Your task to perform on an android device: Open Chrome and go to settings Image 0: 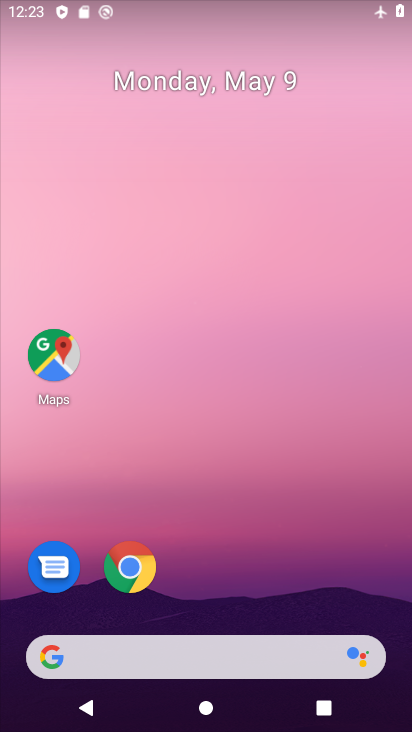
Step 0: click (134, 560)
Your task to perform on an android device: Open Chrome and go to settings Image 1: 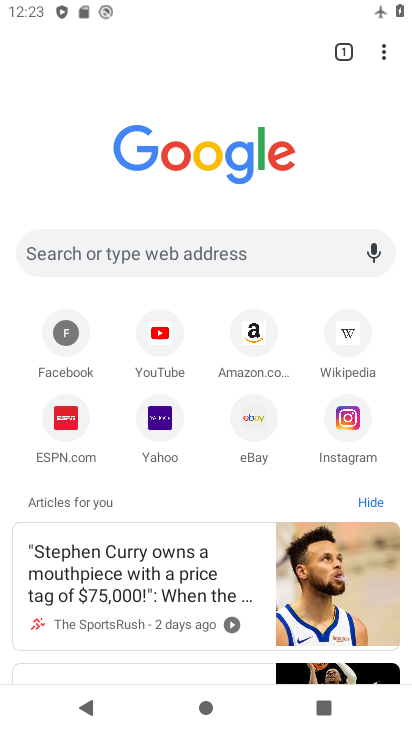
Step 1: click (385, 57)
Your task to perform on an android device: Open Chrome and go to settings Image 2: 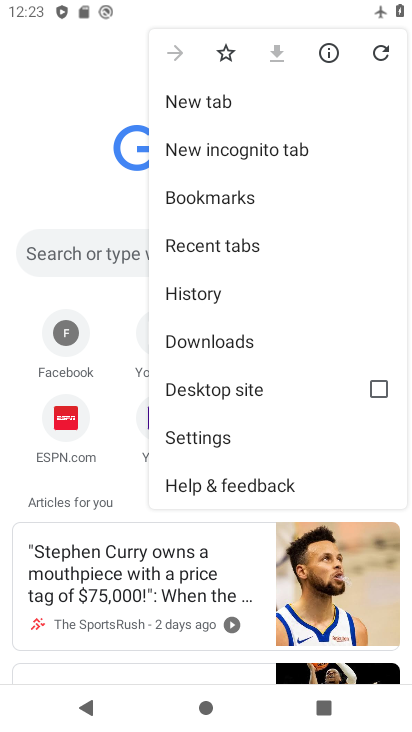
Step 2: click (219, 440)
Your task to perform on an android device: Open Chrome and go to settings Image 3: 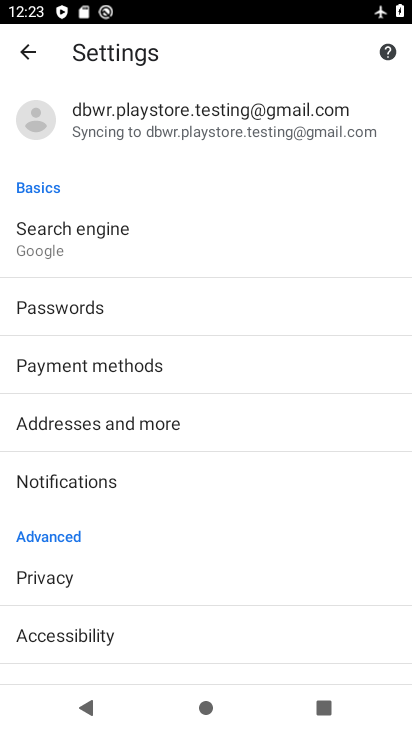
Step 3: task complete